Your task to perform on an android device: open chrome privacy settings Image 0: 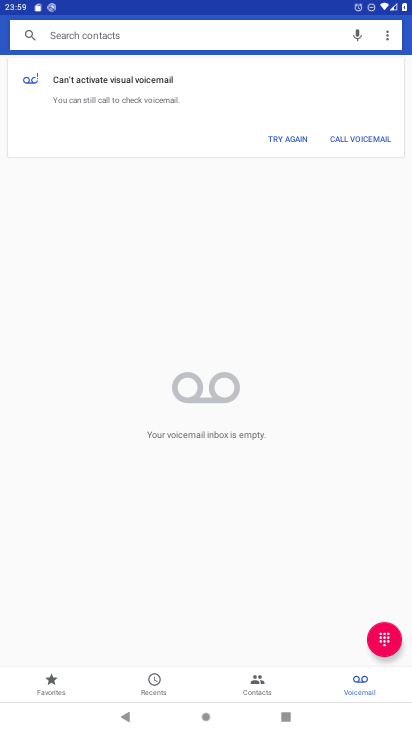
Step 0: drag from (264, 593) to (212, 126)
Your task to perform on an android device: open chrome privacy settings Image 1: 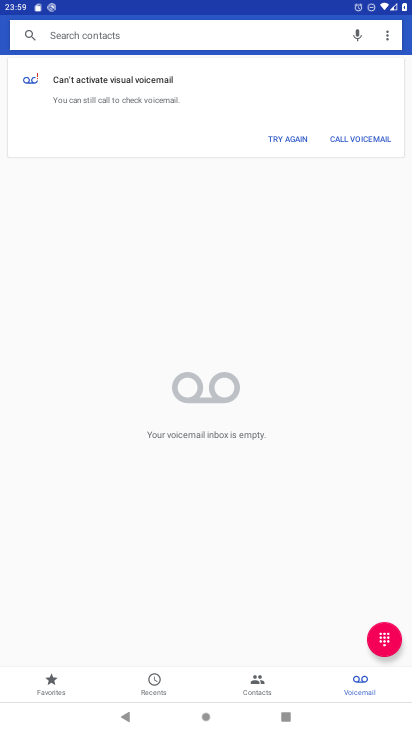
Step 1: press home button
Your task to perform on an android device: open chrome privacy settings Image 2: 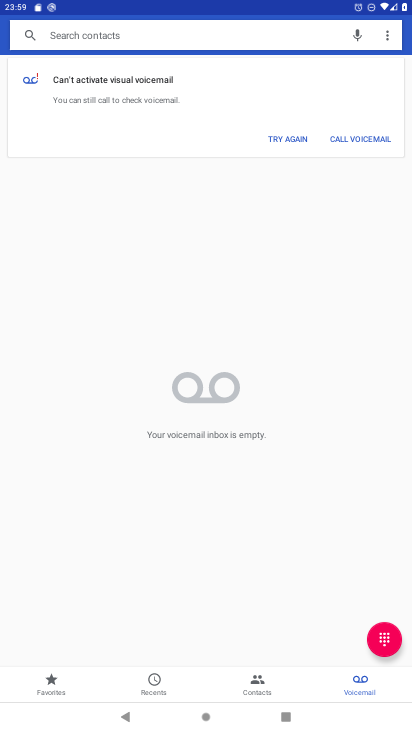
Step 2: press home button
Your task to perform on an android device: open chrome privacy settings Image 3: 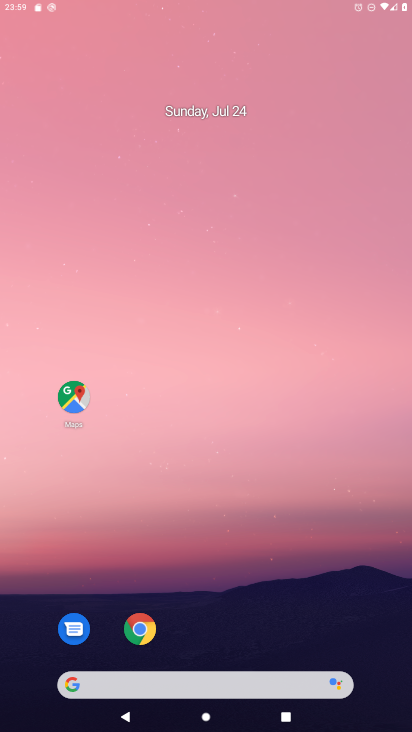
Step 3: drag from (210, 627) to (264, 36)
Your task to perform on an android device: open chrome privacy settings Image 4: 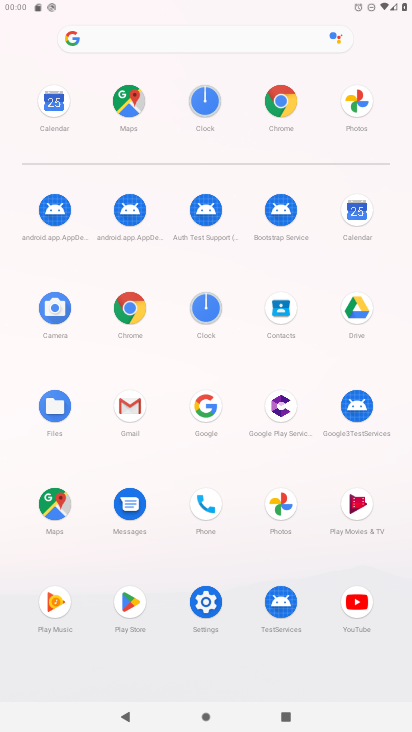
Step 4: click (117, 300)
Your task to perform on an android device: open chrome privacy settings Image 5: 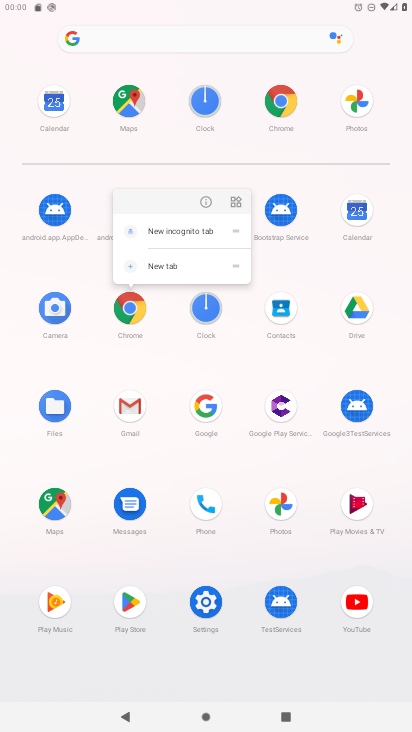
Step 5: click (203, 193)
Your task to perform on an android device: open chrome privacy settings Image 6: 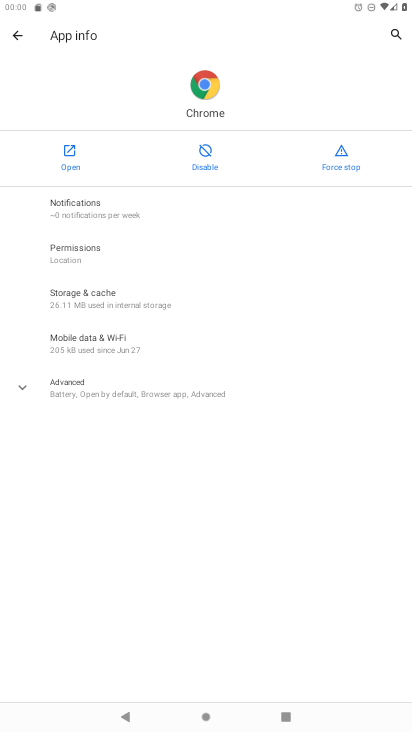
Step 6: click (81, 141)
Your task to perform on an android device: open chrome privacy settings Image 7: 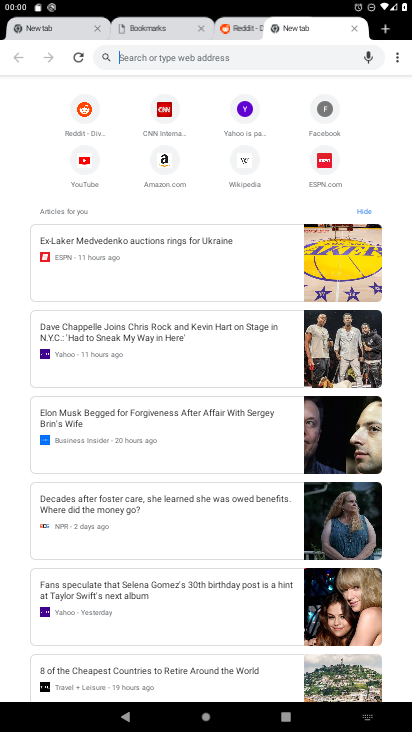
Step 7: drag from (396, 50) to (282, 264)
Your task to perform on an android device: open chrome privacy settings Image 8: 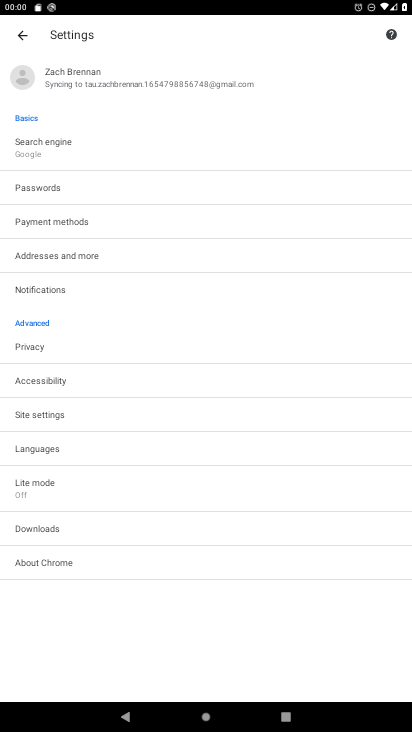
Step 8: click (44, 350)
Your task to perform on an android device: open chrome privacy settings Image 9: 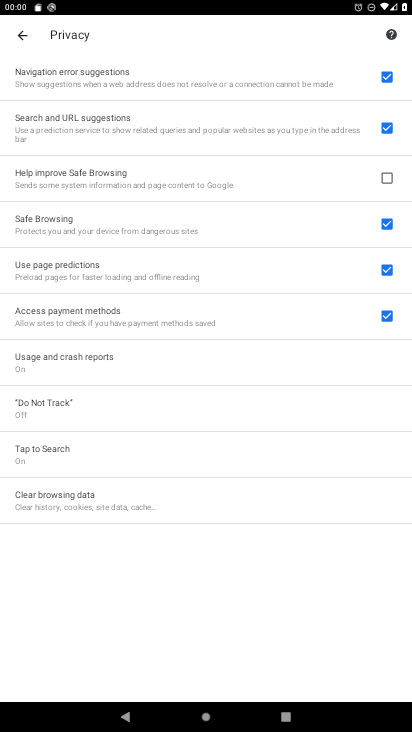
Step 9: task complete